Your task to perform on an android device: Open privacy settings Image 0: 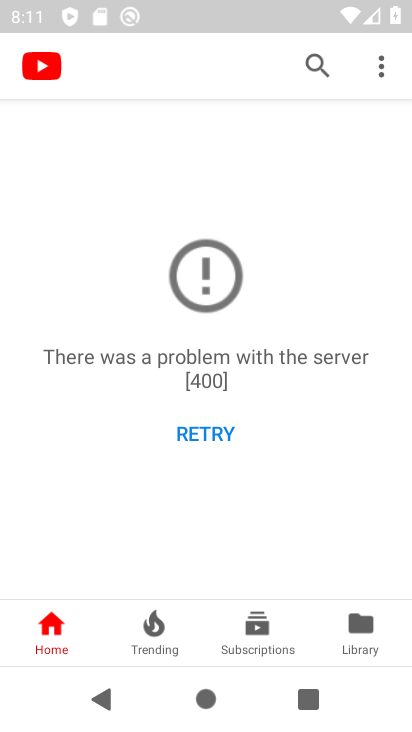
Step 0: press back button
Your task to perform on an android device: Open privacy settings Image 1: 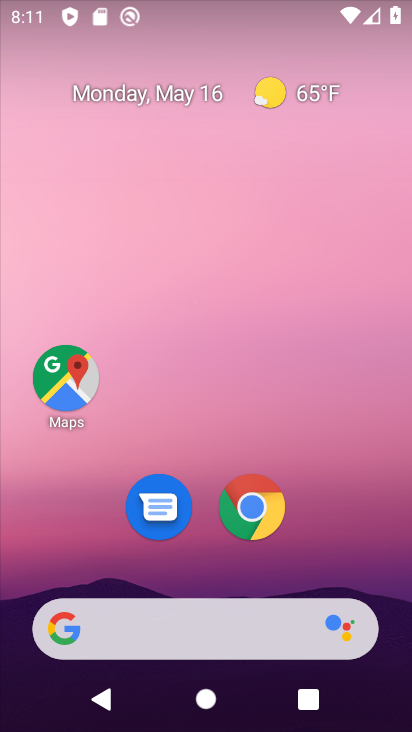
Step 1: drag from (189, 608) to (145, 13)
Your task to perform on an android device: Open privacy settings Image 2: 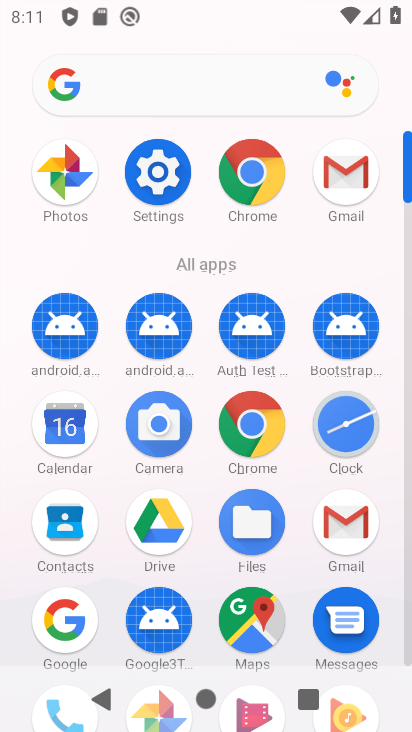
Step 2: click (163, 161)
Your task to perform on an android device: Open privacy settings Image 3: 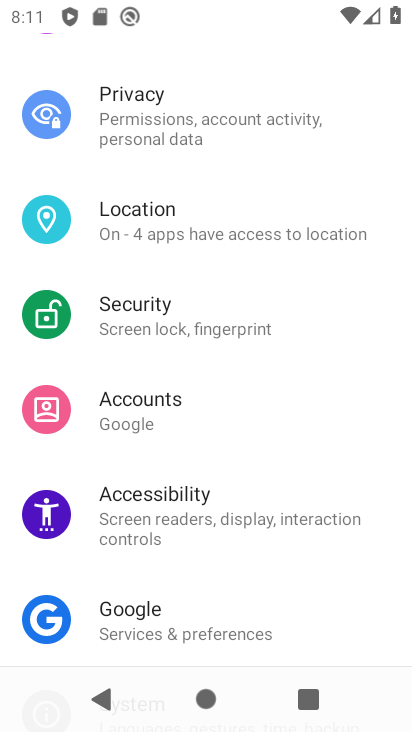
Step 3: click (140, 117)
Your task to perform on an android device: Open privacy settings Image 4: 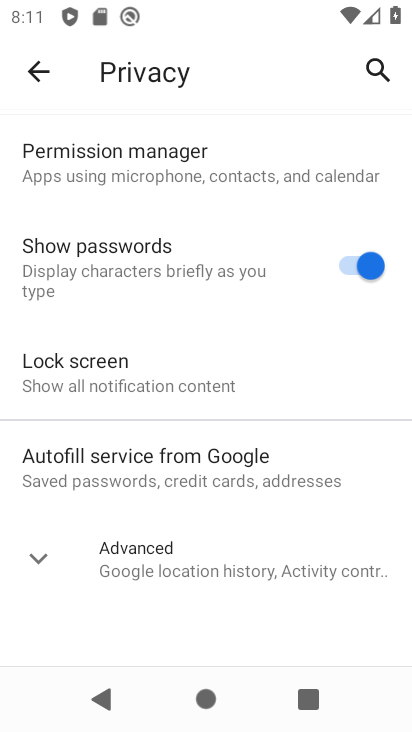
Step 4: click (124, 535)
Your task to perform on an android device: Open privacy settings Image 5: 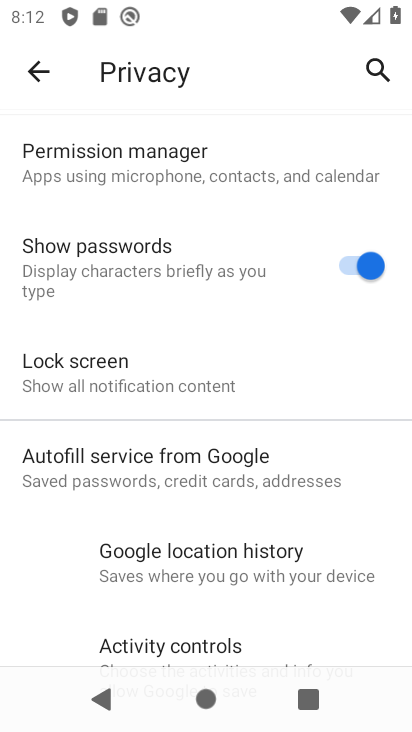
Step 5: task complete